Your task to perform on an android device: Is it going to rain today? Image 0: 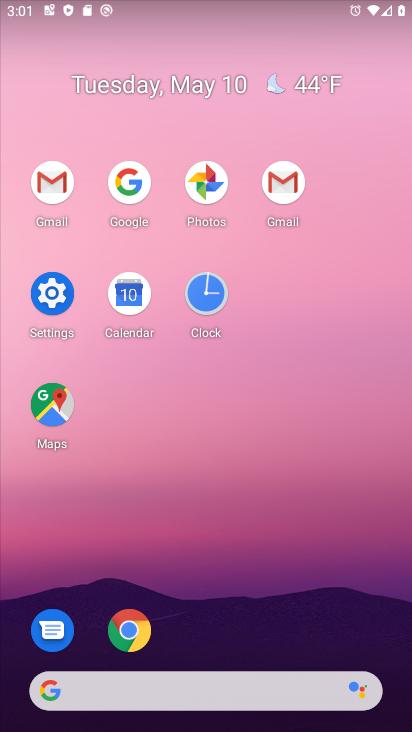
Step 0: click (126, 175)
Your task to perform on an android device: Is it going to rain today? Image 1: 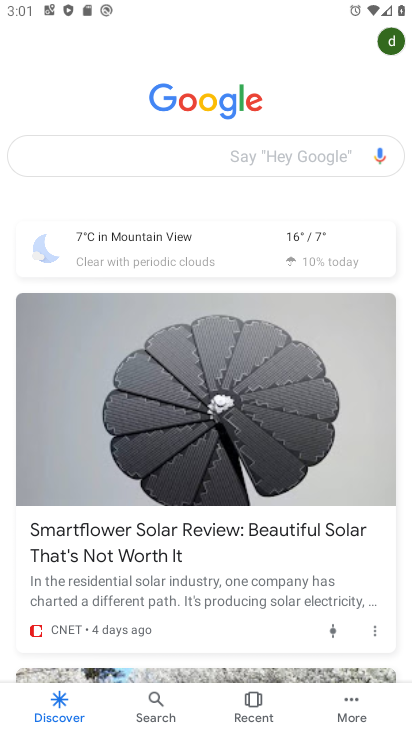
Step 1: click (177, 161)
Your task to perform on an android device: Is it going to rain today? Image 2: 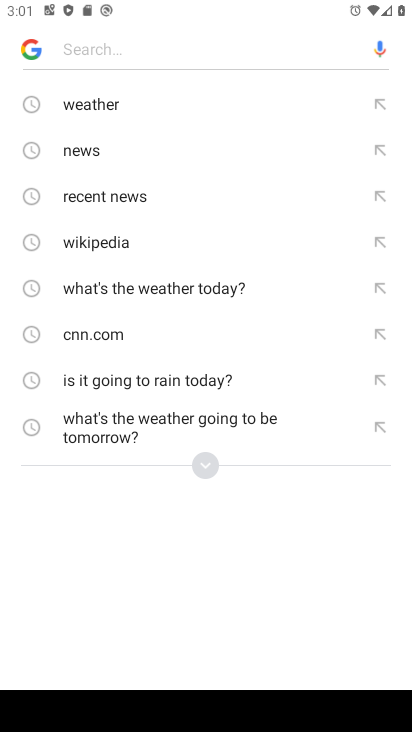
Step 2: click (60, 98)
Your task to perform on an android device: Is it going to rain today? Image 3: 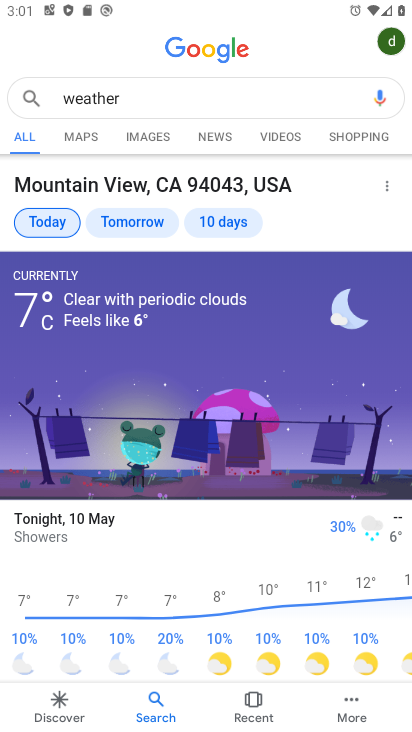
Step 3: task complete